Your task to perform on an android device: delete a single message in the gmail app Image 0: 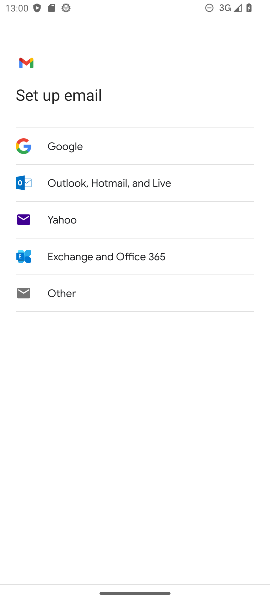
Step 0: press home button
Your task to perform on an android device: delete a single message in the gmail app Image 1: 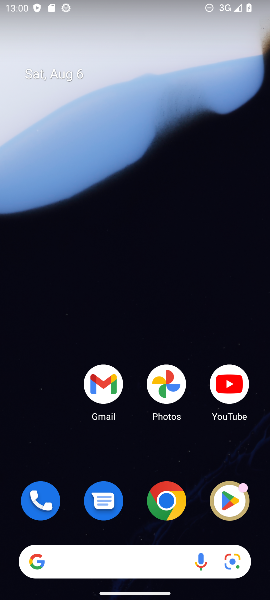
Step 1: click (107, 380)
Your task to perform on an android device: delete a single message in the gmail app Image 2: 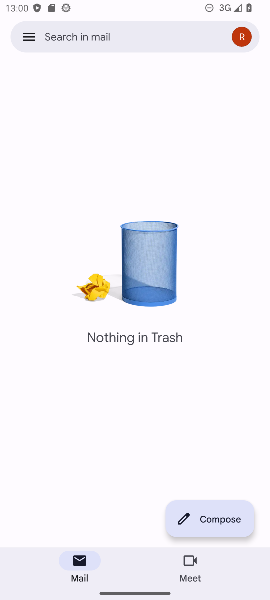
Step 2: click (28, 34)
Your task to perform on an android device: delete a single message in the gmail app Image 3: 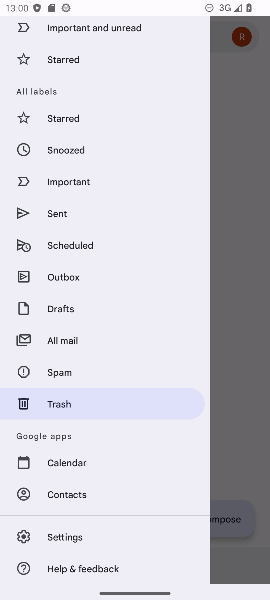
Step 3: click (70, 343)
Your task to perform on an android device: delete a single message in the gmail app Image 4: 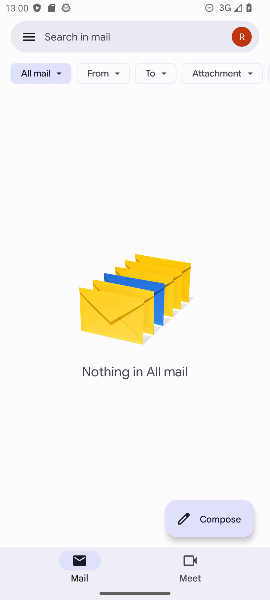
Step 4: task complete